Your task to perform on an android device: set an alarm Image 0: 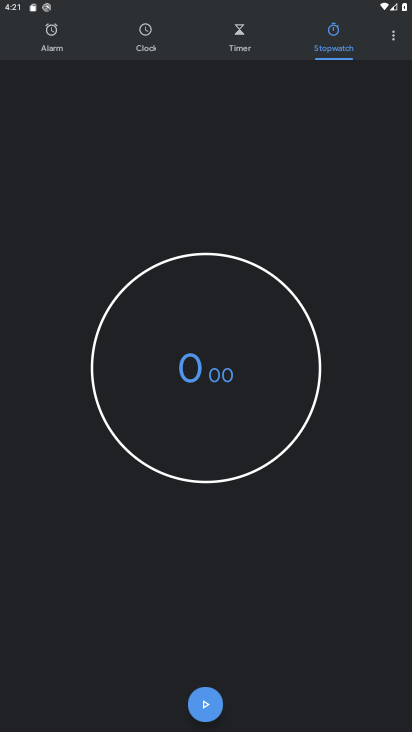
Step 0: press home button
Your task to perform on an android device: set an alarm Image 1: 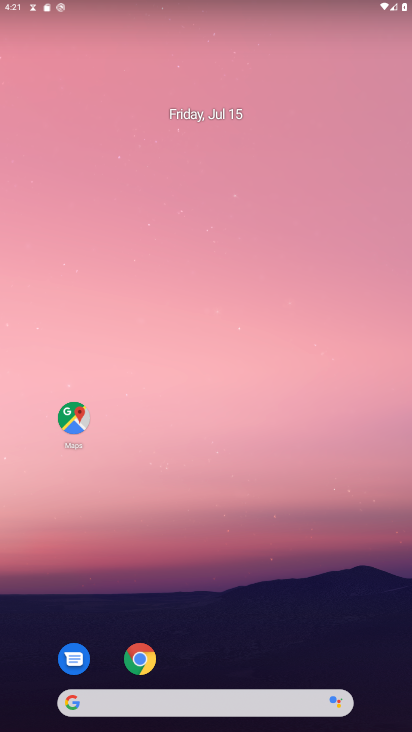
Step 1: drag from (280, 648) to (341, 50)
Your task to perform on an android device: set an alarm Image 2: 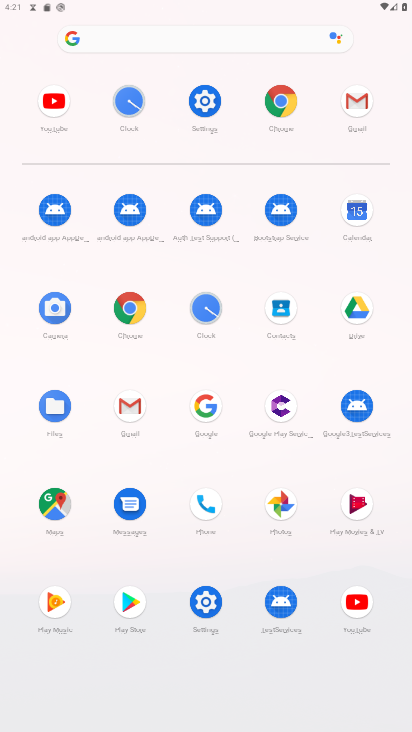
Step 2: click (213, 297)
Your task to perform on an android device: set an alarm Image 3: 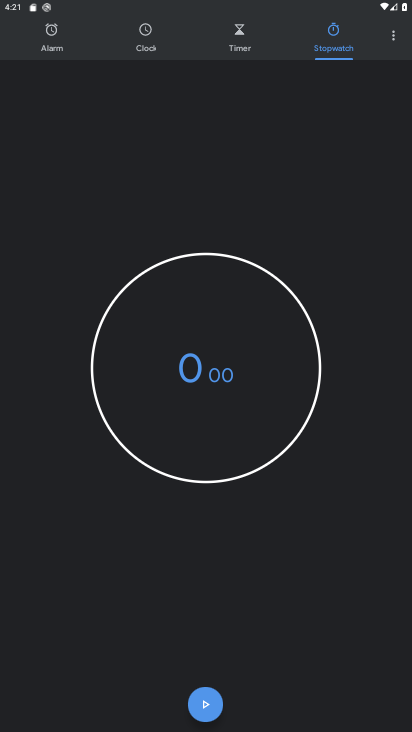
Step 3: click (50, 36)
Your task to perform on an android device: set an alarm Image 4: 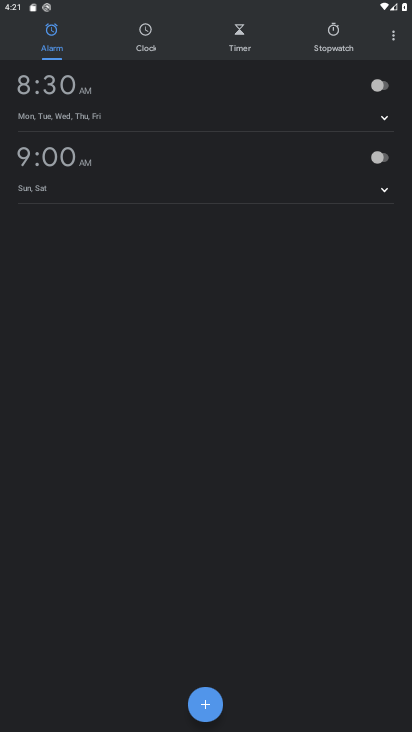
Step 4: click (380, 94)
Your task to perform on an android device: set an alarm Image 5: 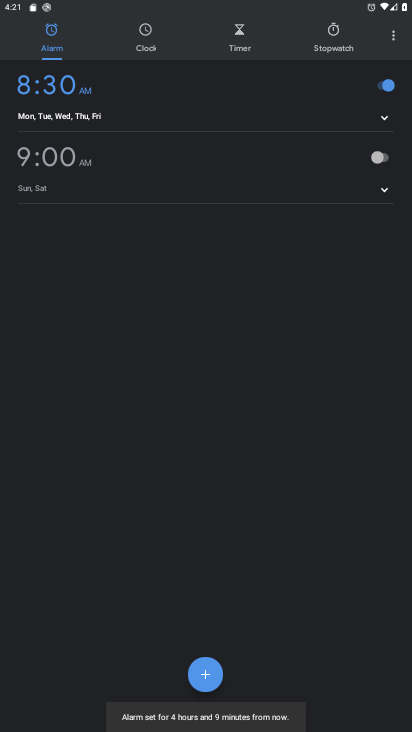
Step 5: task complete